Your task to perform on an android device: Go to privacy settings Image 0: 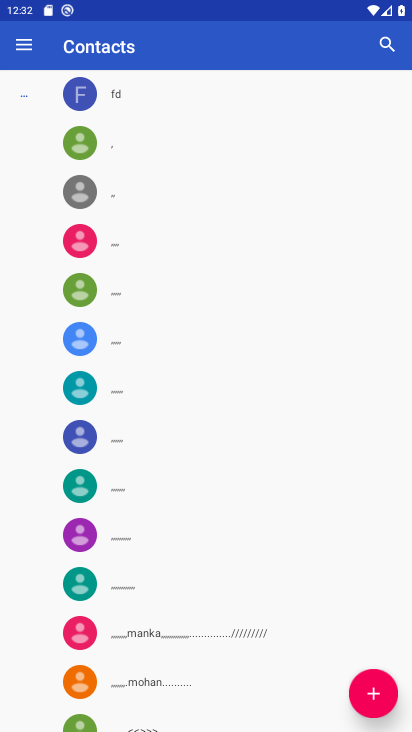
Step 0: press home button
Your task to perform on an android device: Go to privacy settings Image 1: 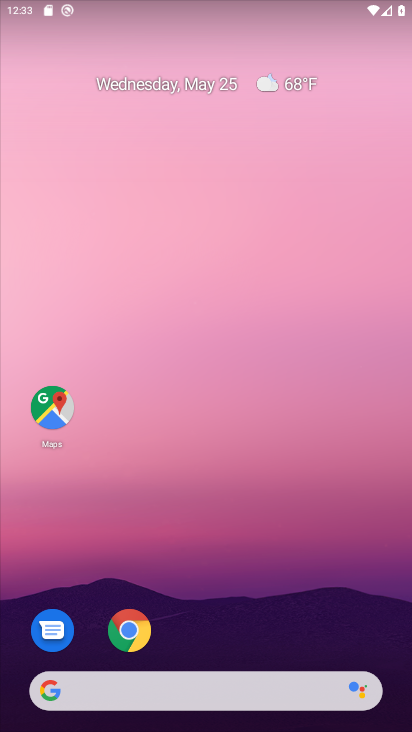
Step 1: click (139, 619)
Your task to perform on an android device: Go to privacy settings Image 2: 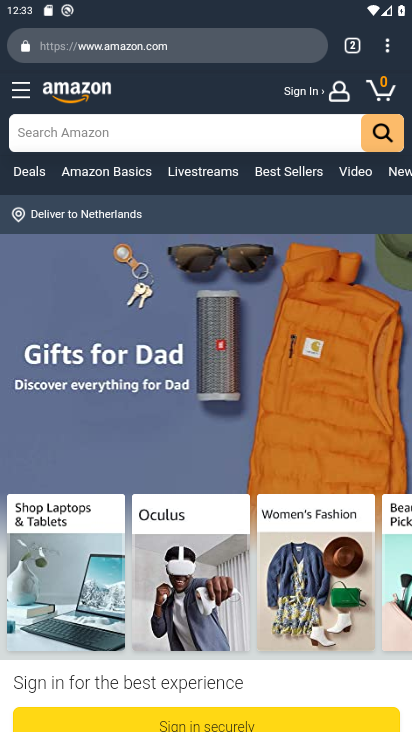
Step 2: press home button
Your task to perform on an android device: Go to privacy settings Image 3: 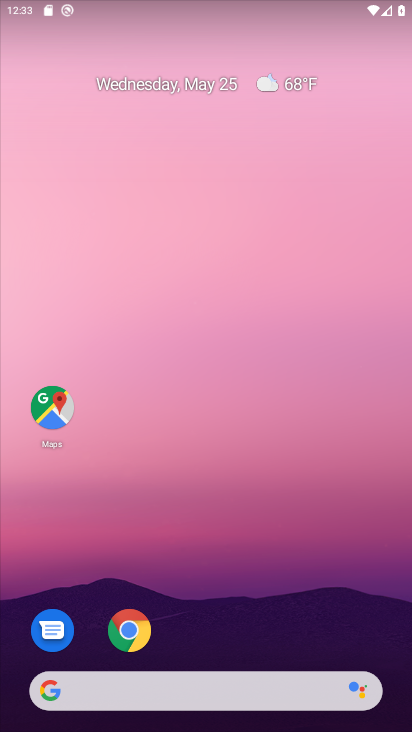
Step 3: drag from (204, 623) to (257, 123)
Your task to perform on an android device: Go to privacy settings Image 4: 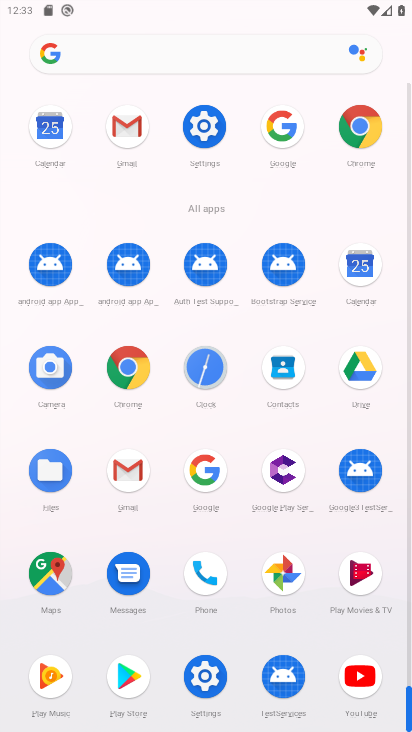
Step 4: click (194, 126)
Your task to perform on an android device: Go to privacy settings Image 5: 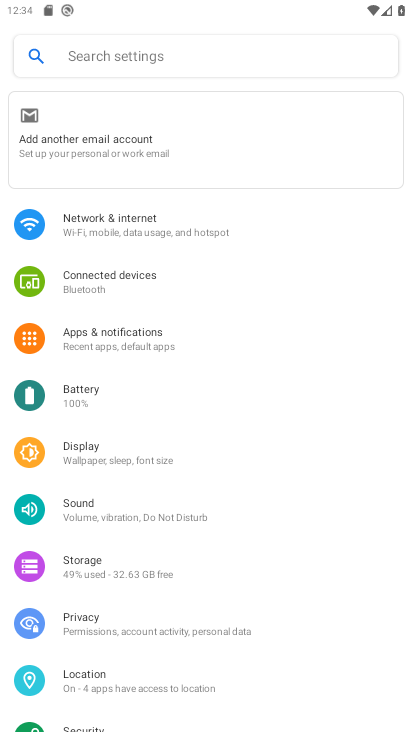
Step 5: click (124, 625)
Your task to perform on an android device: Go to privacy settings Image 6: 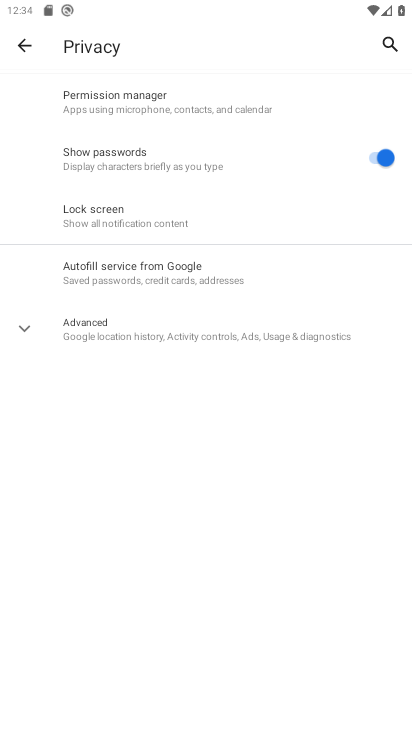
Step 6: task complete